Your task to perform on an android device: Open the web browser Image 0: 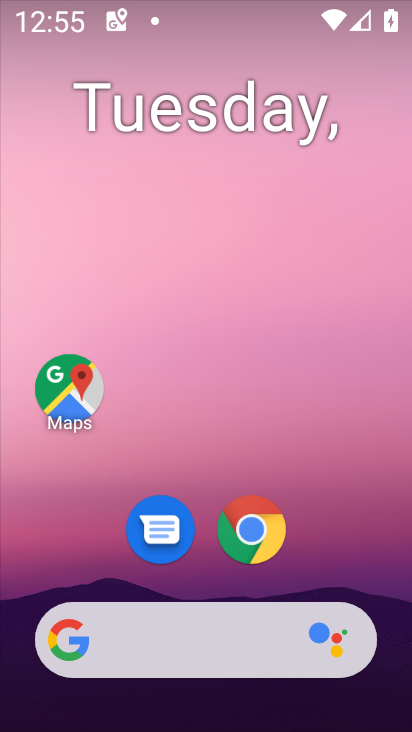
Step 0: click (241, 546)
Your task to perform on an android device: Open the web browser Image 1: 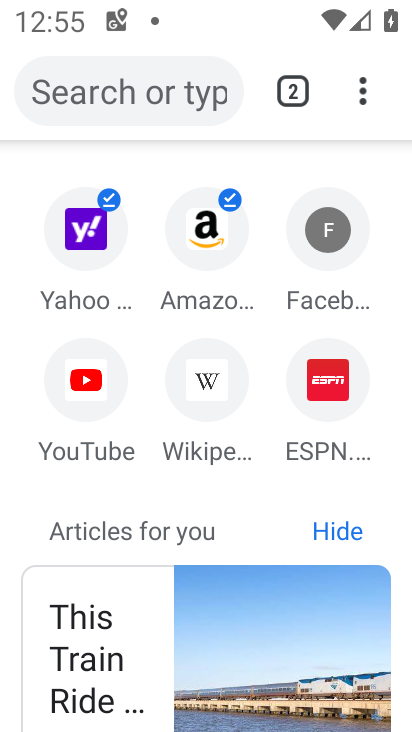
Step 1: task complete